Your task to perform on an android device: Open the stopwatch Image 0: 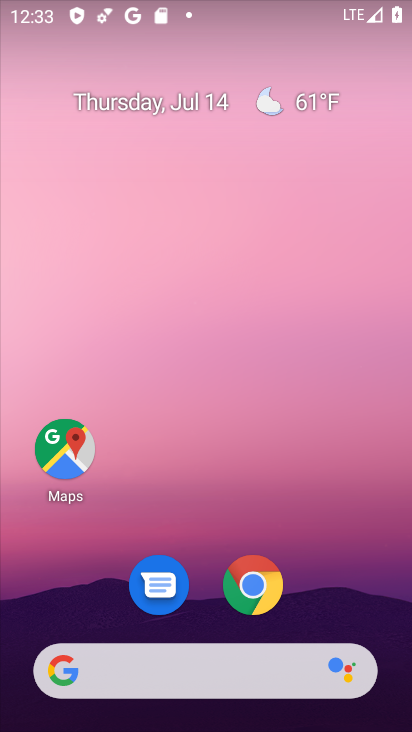
Step 0: drag from (299, 536) to (328, 11)
Your task to perform on an android device: Open the stopwatch Image 1: 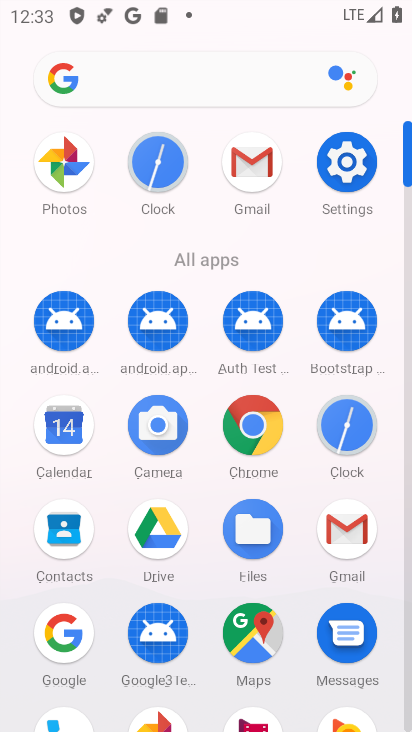
Step 1: click (352, 177)
Your task to perform on an android device: Open the stopwatch Image 2: 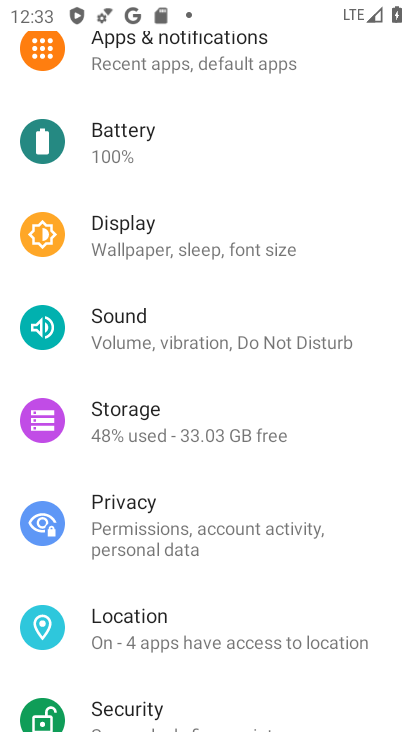
Step 2: press home button
Your task to perform on an android device: Open the stopwatch Image 3: 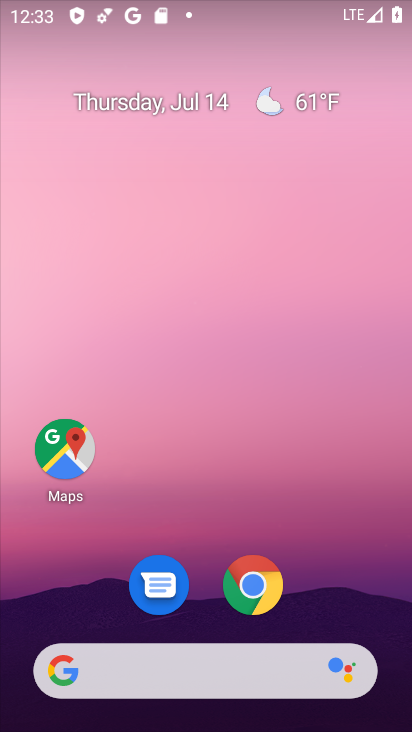
Step 3: drag from (349, 582) to (375, 51)
Your task to perform on an android device: Open the stopwatch Image 4: 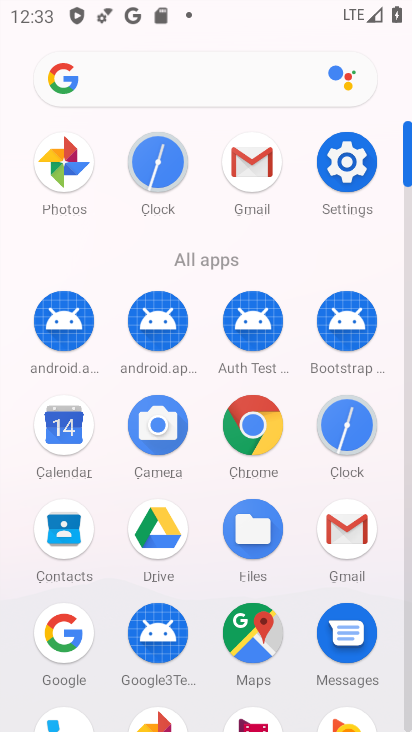
Step 4: click (163, 172)
Your task to perform on an android device: Open the stopwatch Image 5: 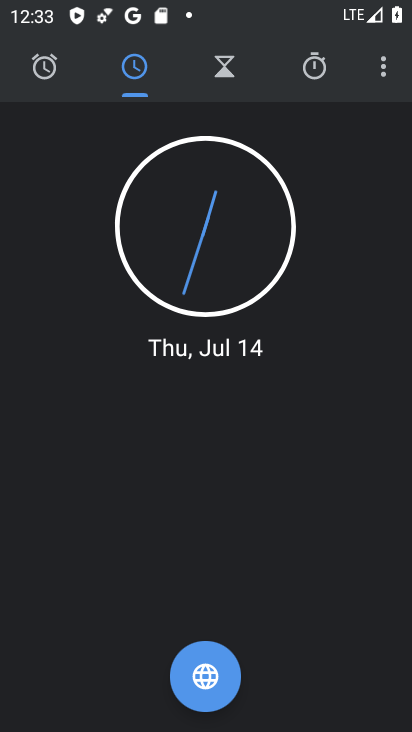
Step 5: click (316, 70)
Your task to perform on an android device: Open the stopwatch Image 6: 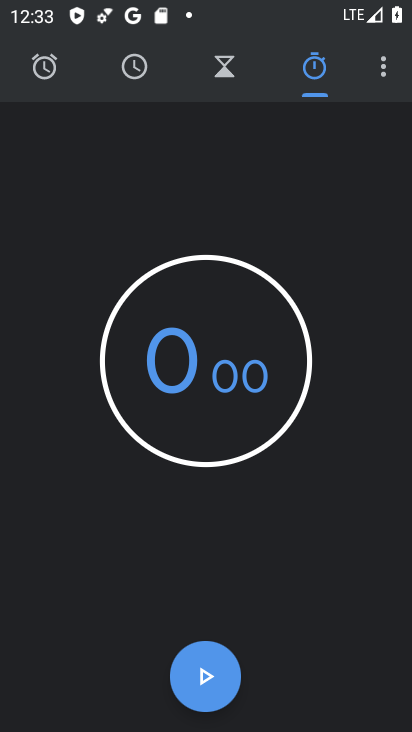
Step 6: task complete